Your task to perform on an android device: change notification settings in the gmail app Image 0: 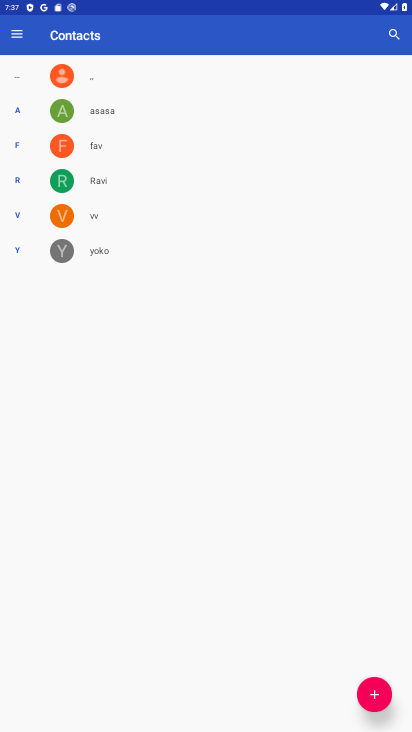
Step 0: press home button
Your task to perform on an android device: change notification settings in the gmail app Image 1: 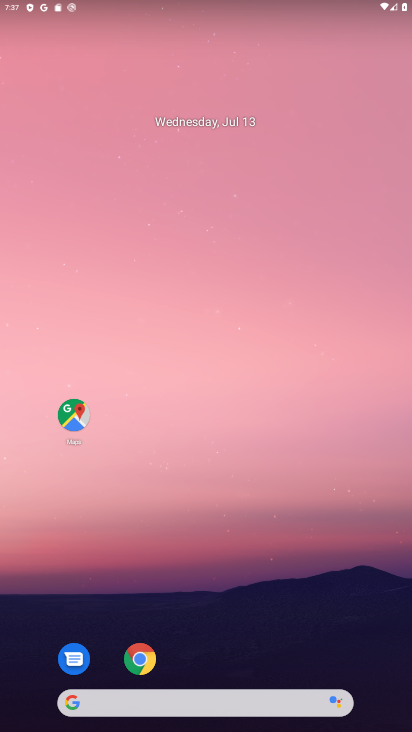
Step 1: drag from (248, 639) to (234, 55)
Your task to perform on an android device: change notification settings in the gmail app Image 2: 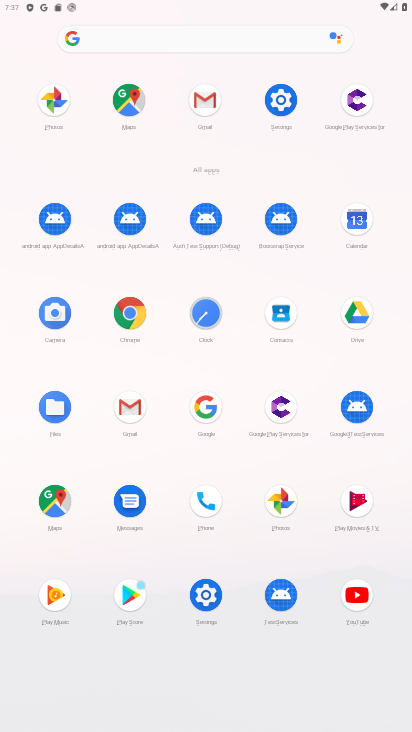
Step 2: click (203, 106)
Your task to perform on an android device: change notification settings in the gmail app Image 3: 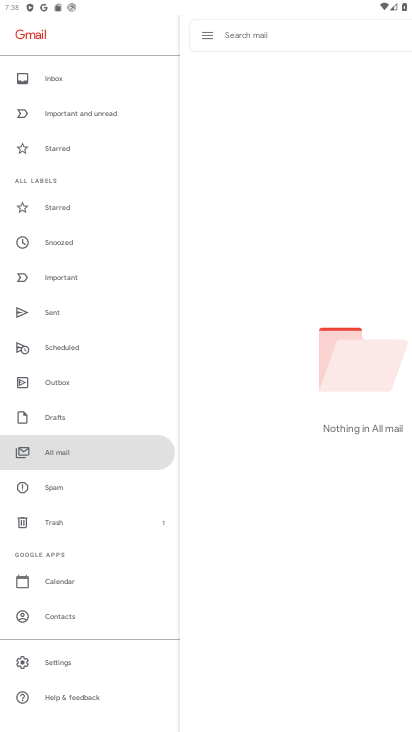
Step 3: click (46, 655)
Your task to perform on an android device: change notification settings in the gmail app Image 4: 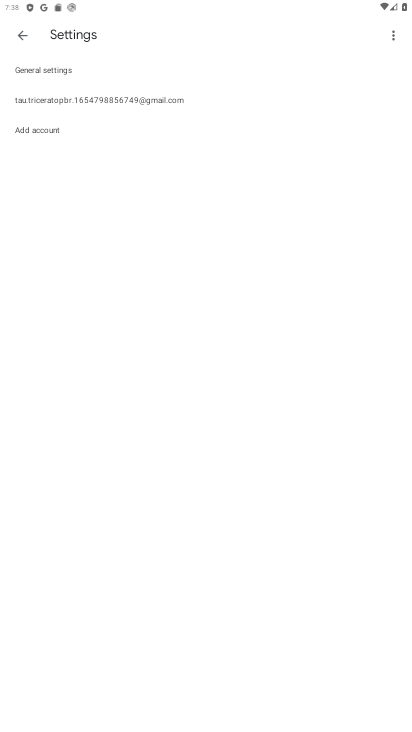
Step 4: click (84, 66)
Your task to perform on an android device: change notification settings in the gmail app Image 5: 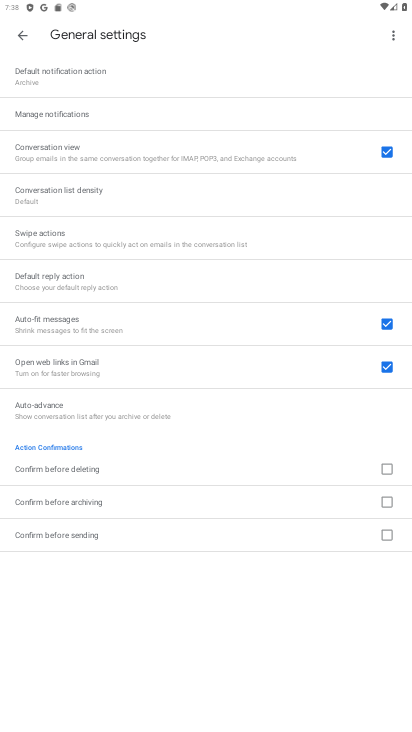
Step 5: click (80, 102)
Your task to perform on an android device: change notification settings in the gmail app Image 6: 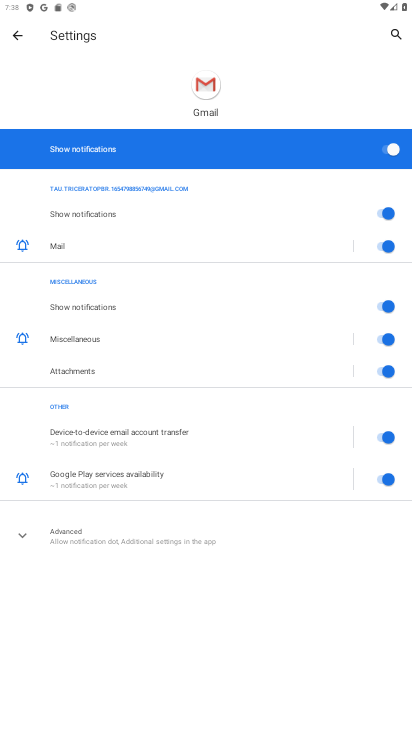
Step 6: click (387, 148)
Your task to perform on an android device: change notification settings in the gmail app Image 7: 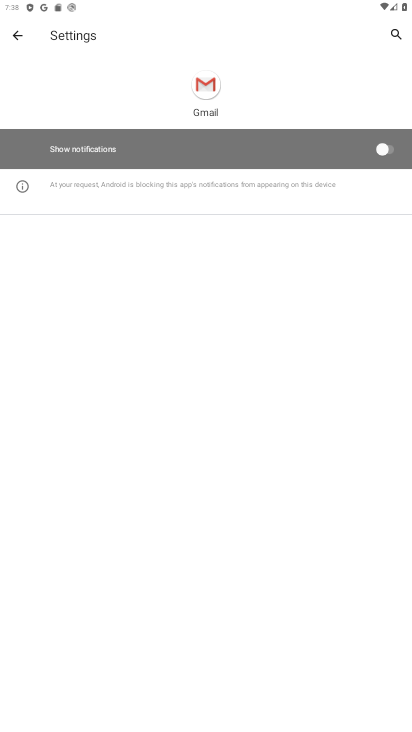
Step 7: task complete